Your task to perform on an android device: see tabs open on other devices in the chrome app Image 0: 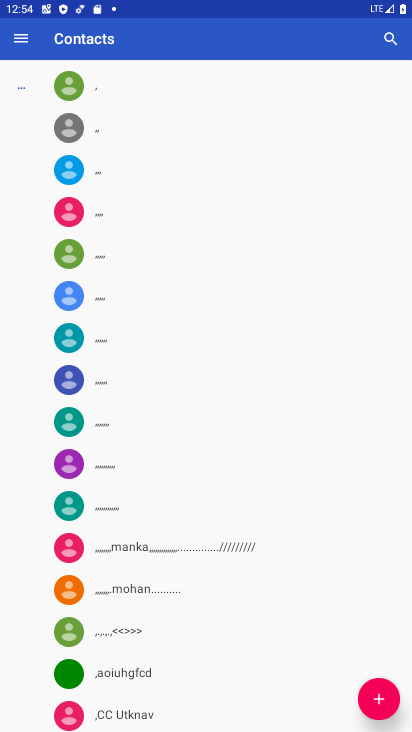
Step 0: press home button
Your task to perform on an android device: see tabs open on other devices in the chrome app Image 1: 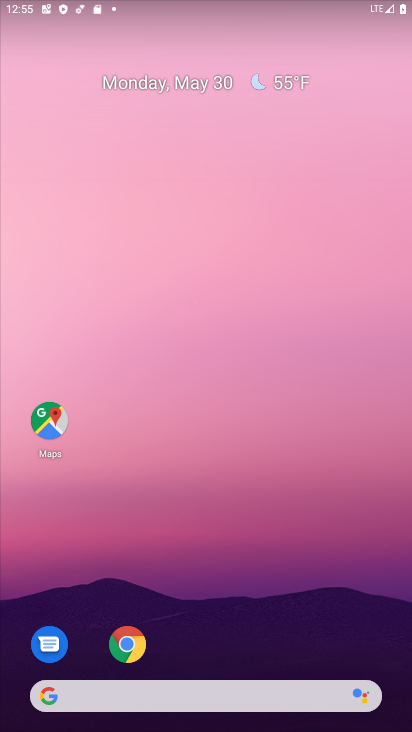
Step 1: click (114, 634)
Your task to perform on an android device: see tabs open on other devices in the chrome app Image 2: 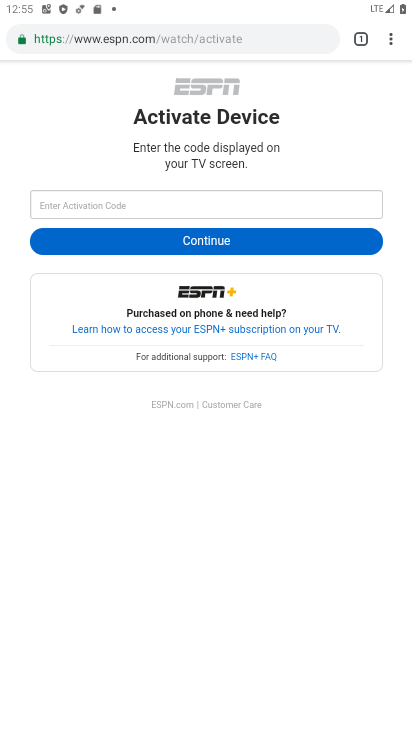
Step 2: click (389, 35)
Your task to perform on an android device: see tabs open on other devices in the chrome app Image 3: 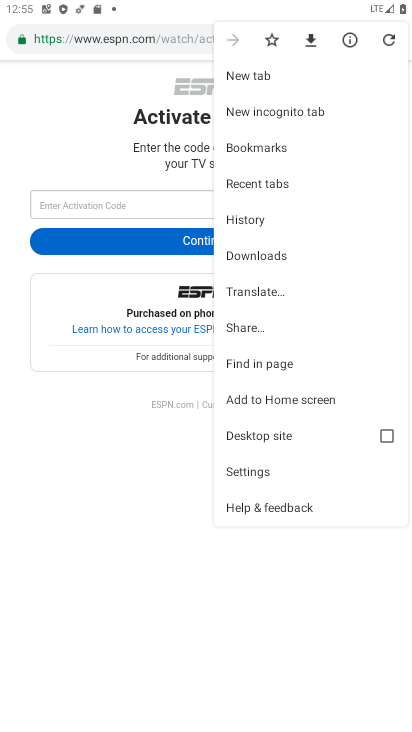
Step 3: click (325, 107)
Your task to perform on an android device: see tabs open on other devices in the chrome app Image 4: 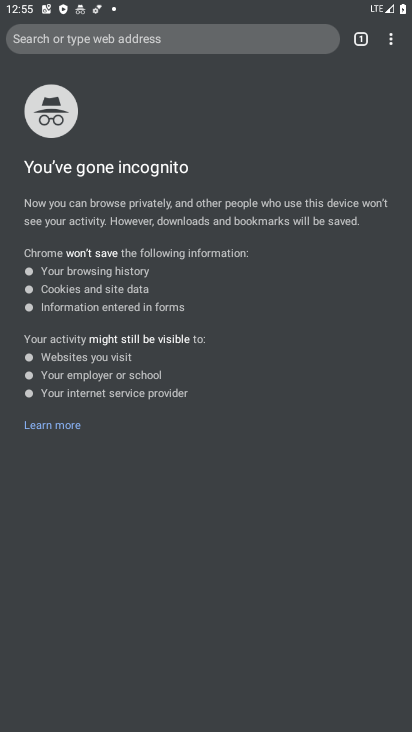
Step 4: task complete